Your task to perform on an android device: Go to network settings Image 0: 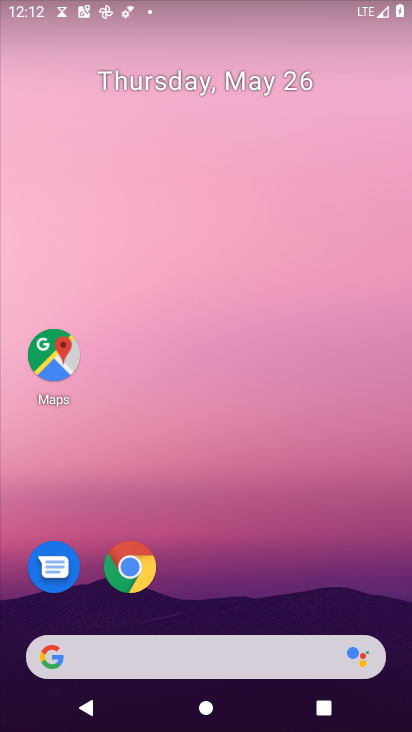
Step 0: drag from (243, 403) to (196, 77)
Your task to perform on an android device: Go to network settings Image 1: 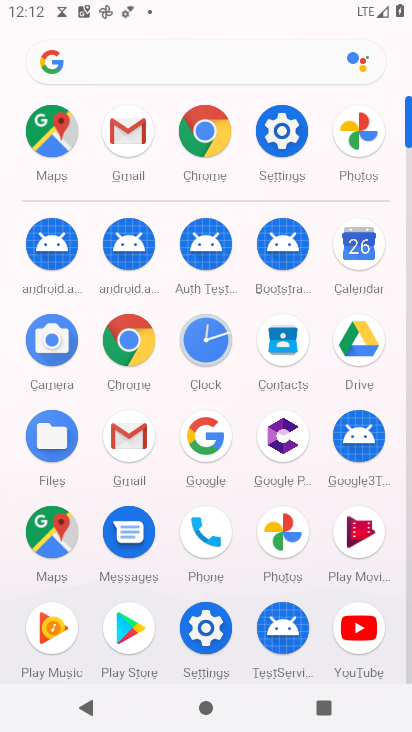
Step 1: click (277, 115)
Your task to perform on an android device: Go to network settings Image 2: 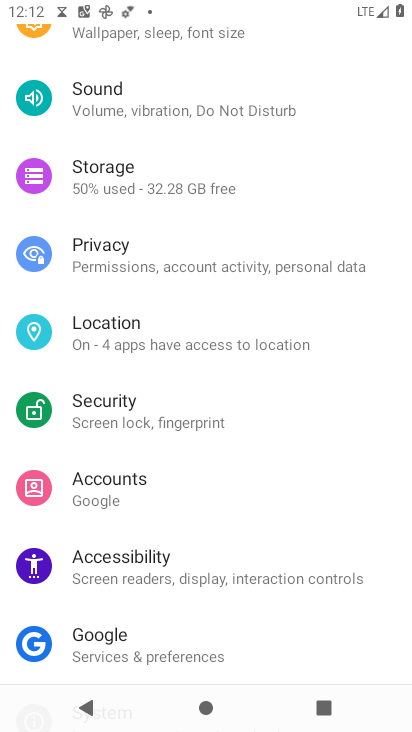
Step 2: drag from (158, 152) to (178, 665)
Your task to perform on an android device: Go to network settings Image 3: 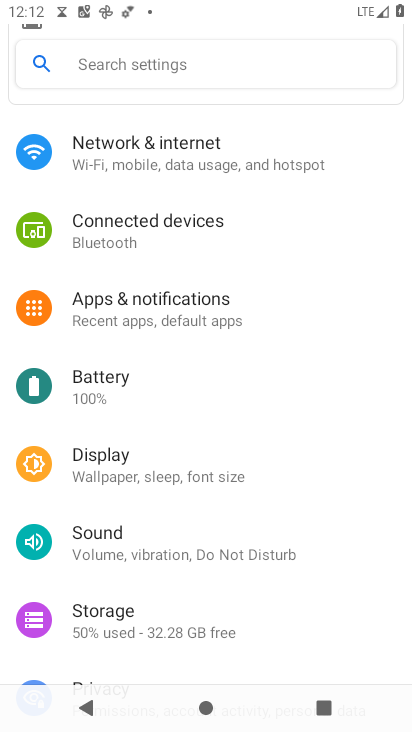
Step 3: drag from (230, 238) to (249, 606)
Your task to perform on an android device: Go to network settings Image 4: 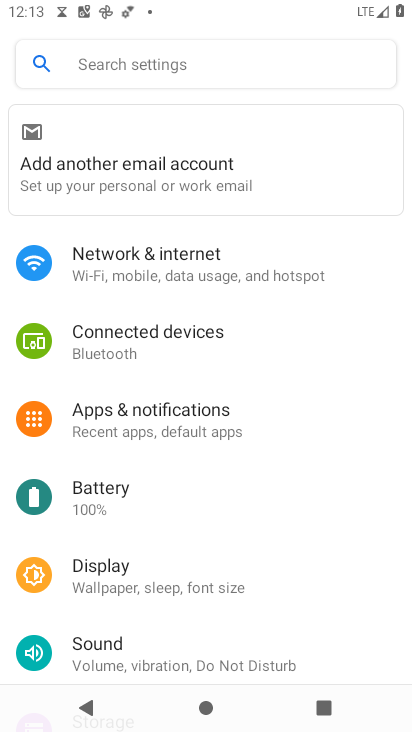
Step 4: drag from (231, 584) to (235, 147)
Your task to perform on an android device: Go to network settings Image 5: 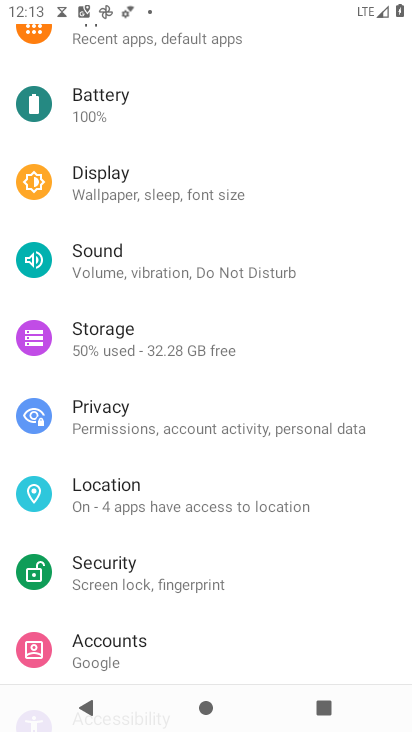
Step 5: drag from (243, 319) to (239, 580)
Your task to perform on an android device: Go to network settings Image 6: 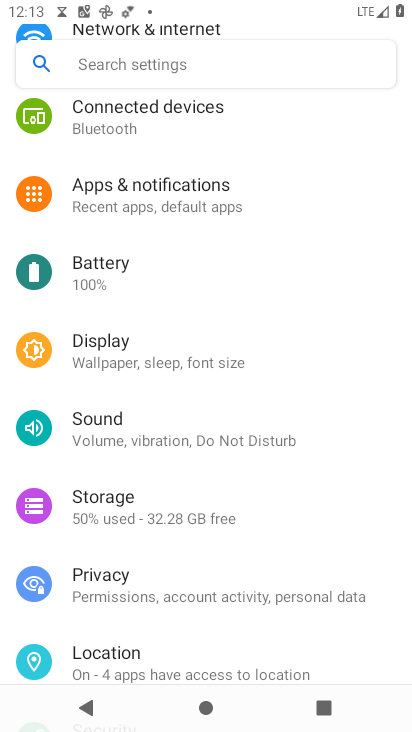
Step 6: drag from (202, 192) to (233, 632)
Your task to perform on an android device: Go to network settings Image 7: 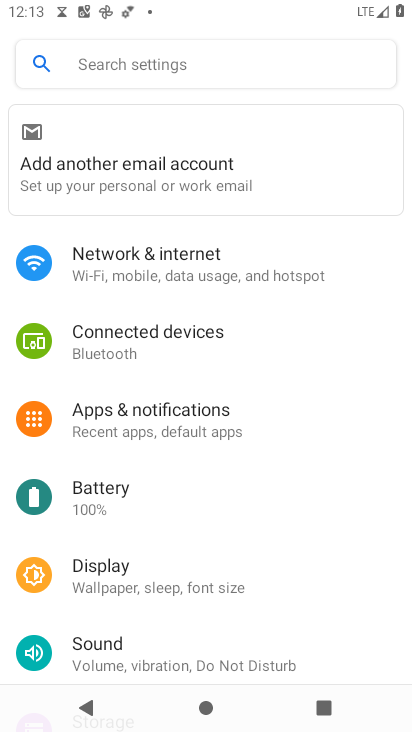
Step 7: click (219, 268)
Your task to perform on an android device: Go to network settings Image 8: 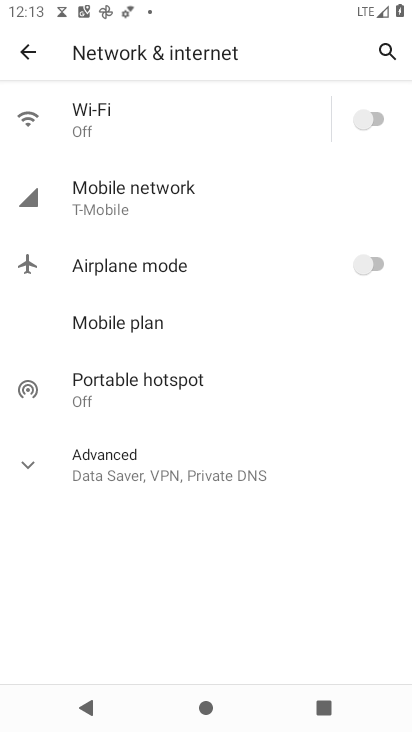
Step 8: task complete